Your task to perform on an android device: toggle javascript in the chrome app Image 0: 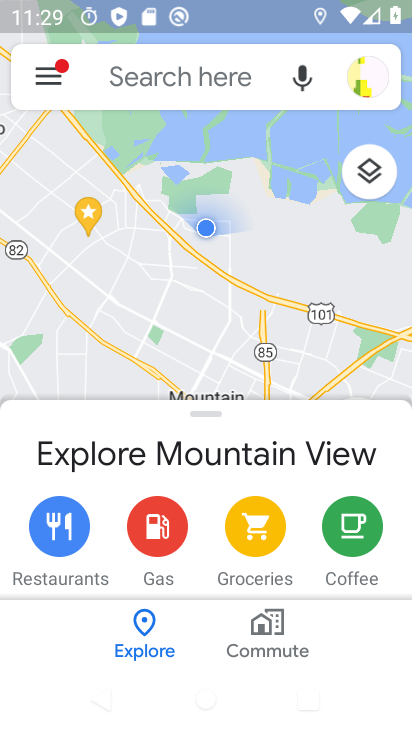
Step 0: press back button
Your task to perform on an android device: toggle javascript in the chrome app Image 1: 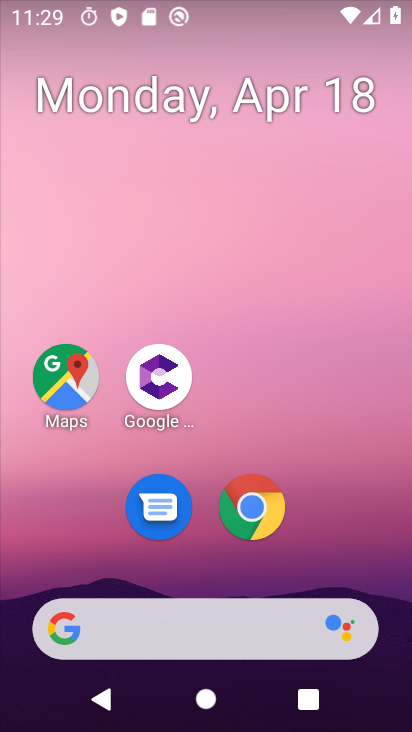
Step 1: drag from (250, 647) to (334, 273)
Your task to perform on an android device: toggle javascript in the chrome app Image 2: 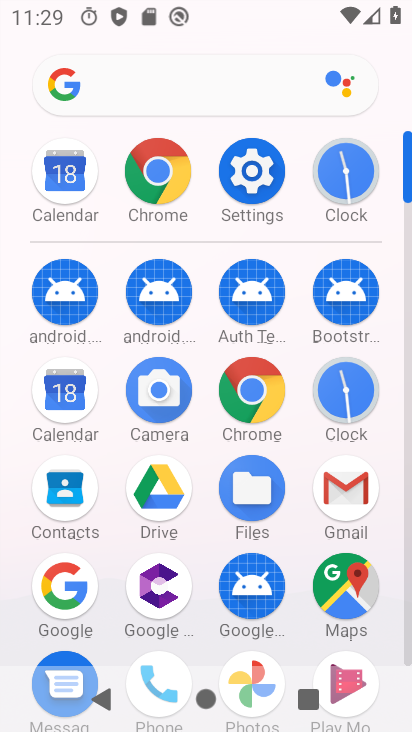
Step 2: click (272, 404)
Your task to perform on an android device: toggle javascript in the chrome app Image 3: 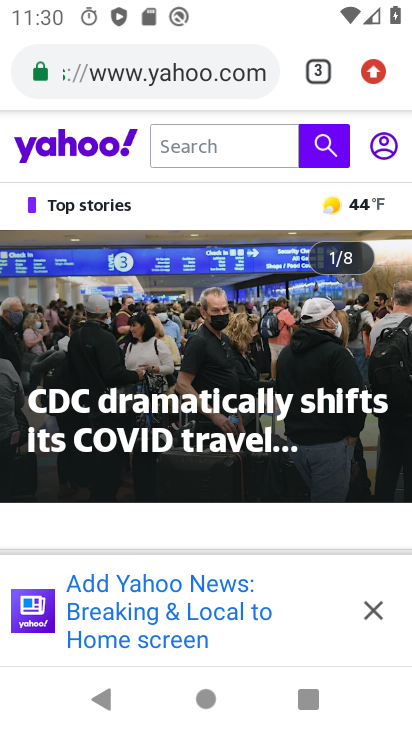
Step 3: click (372, 65)
Your task to perform on an android device: toggle javascript in the chrome app Image 4: 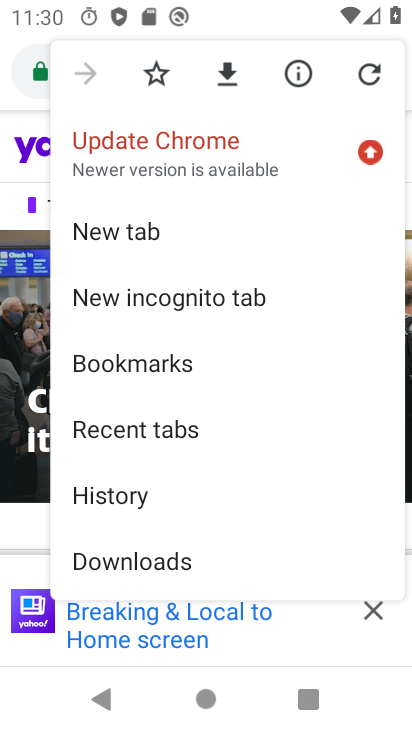
Step 4: drag from (168, 514) to (233, 266)
Your task to perform on an android device: toggle javascript in the chrome app Image 5: 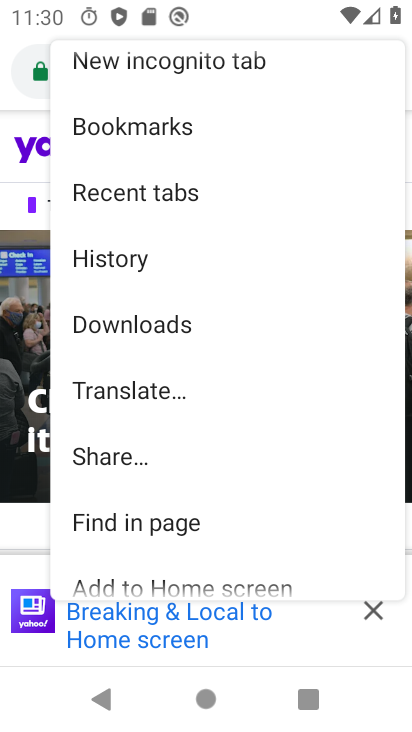
Step 5: drag from (152, 541) to (228, 343)
Your task to perform on an android device: toggle javascript in the chrome app Image 6: 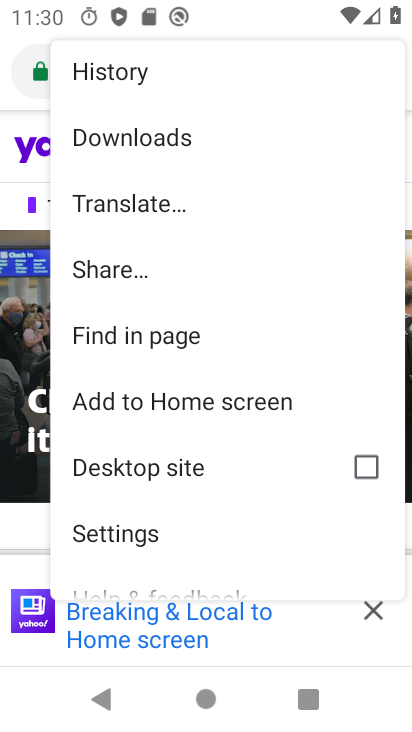
Step 6: click (135, 523)
Your task to perform on an android device: toggle javascript in the chrome app Image 7: 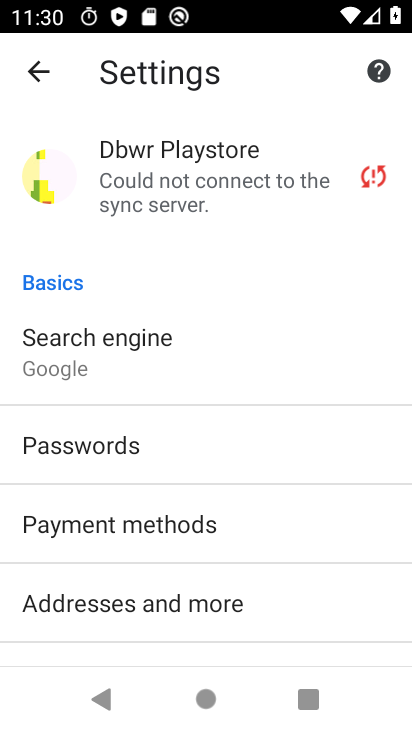
Step 7: drag from (106, 592) to (205, 328)
Your task to perform on an android device: toggle javascript in the chrome app Image 8: 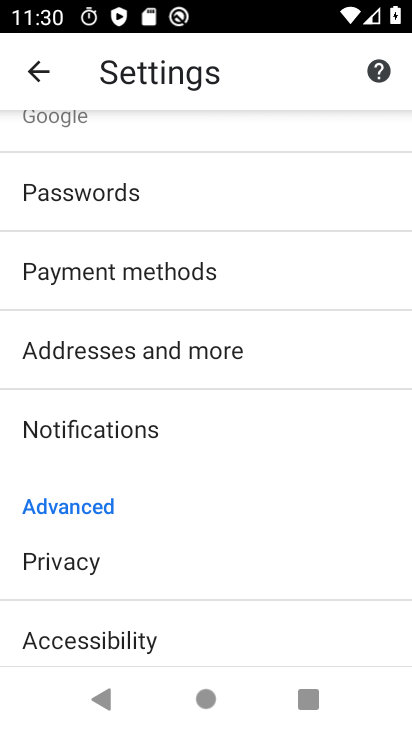
Step 8: drag from (213, 451) to (288, 287)
Your task to perform on an android device: toggle javascript in the chrome app Image 9: 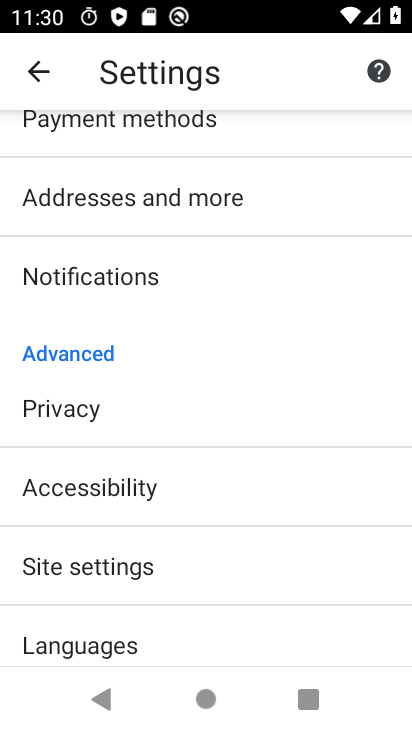
Step 9: click (130, 576)
Your task to perform on an android device: toggle javascript in the chrome app Image 10: 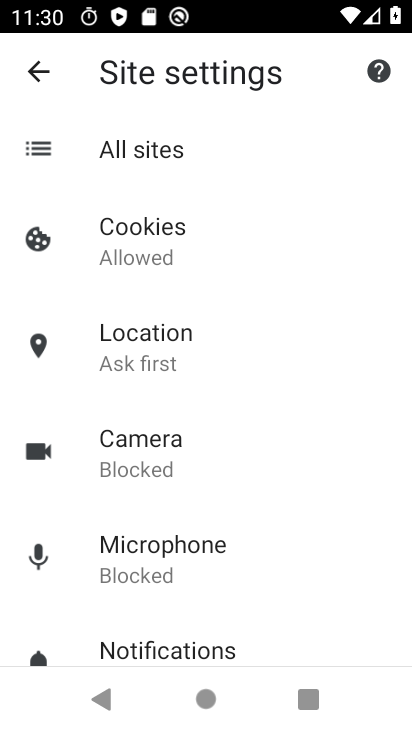
Step 10: drag from (154, 560) to (258, 351)
Your task to perform on an android device: toggle javascript in the chrome app Image 11: 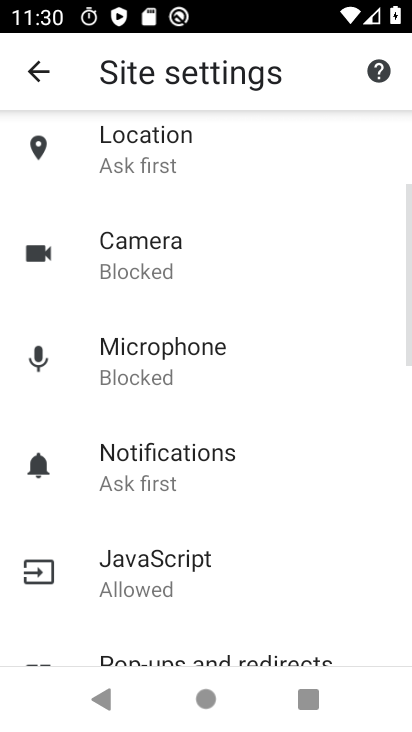
Step 11: click (151, 554)
Your task to perform on an android device: toggle javascript in the chrome app Image 12: 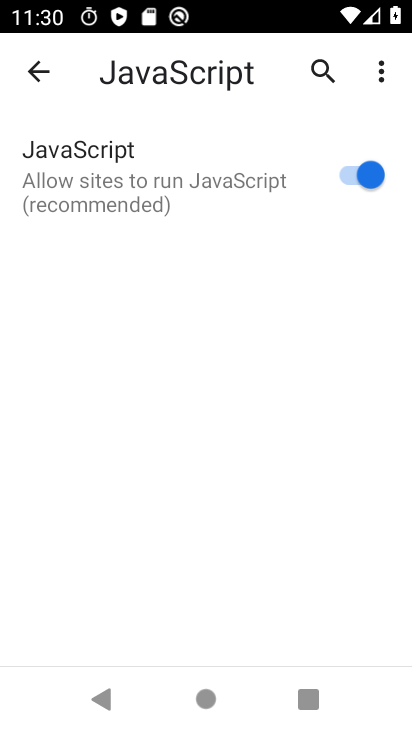
Step 12: task complete